Your task to perform on an android device: Set the phone to "Do not disturb". Image 0: 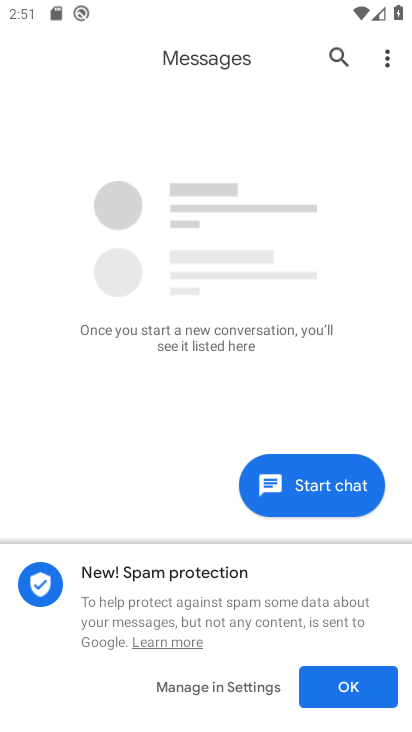
Step 0: press home button
Your task to perform on an android device: Set the phone to "Do not disturb". Image 1: 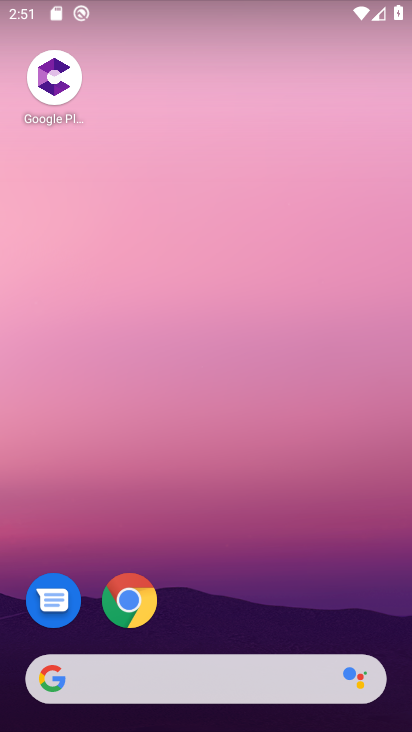
Step 1: drag from (188, 653) to (286, 175)
Your task to perform on an android device: Set the phone to "Do not disturb". Image 2: 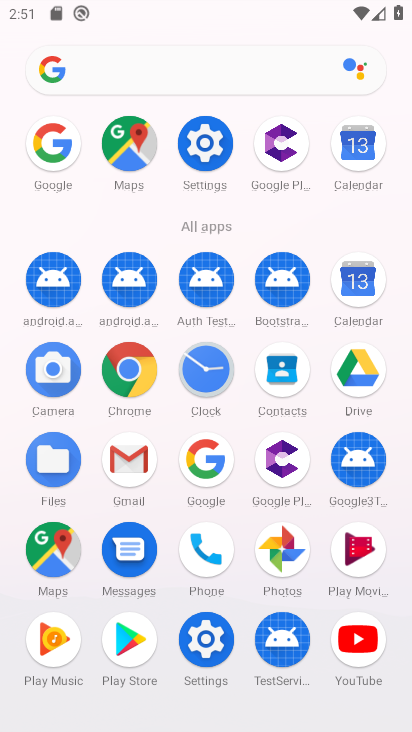
Step 2: click (213, 148)
Your task to perform on an android device: Set the phone to "Do not disturb". Image 3: 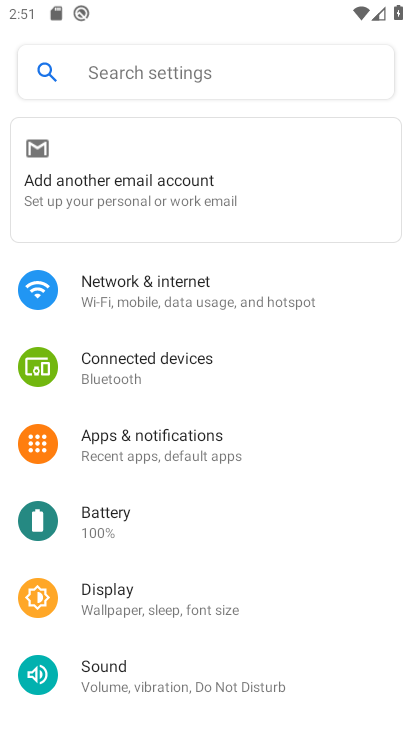
Step 3: click (216, 688)
Your task to perform on an android device: Set the phone to "Do not disturb". Image 4: 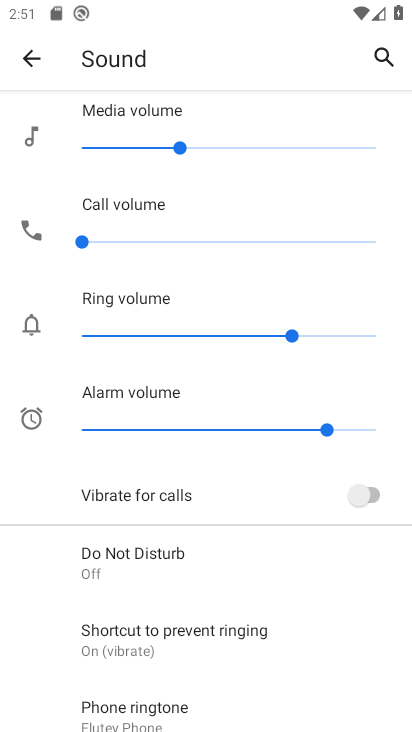
Step 4: click (146, 541)
Your task to perform on an android device: Set the phone to "Do not disturb". Image 5: 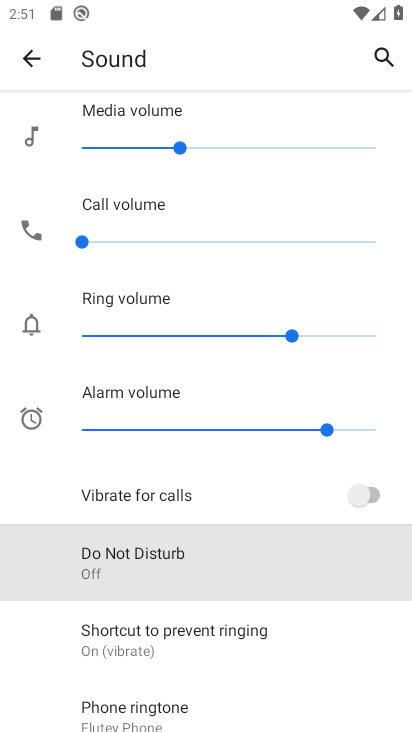
Step 5: click (145, 561)
Your task to perform on an android device: Set the phone to "Do not disturb". Image 6: 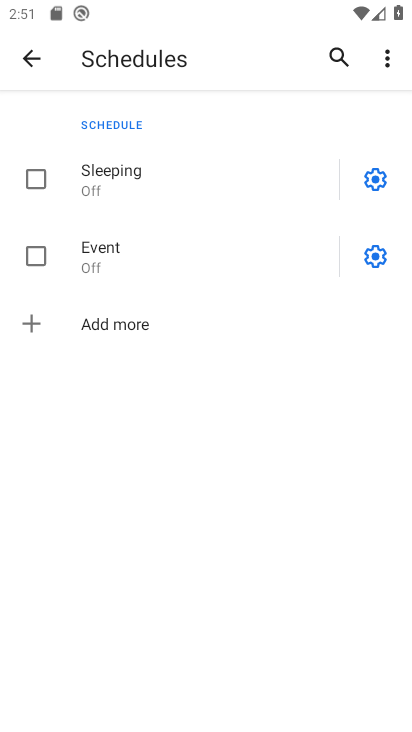
Step 6: click (104, 570)
Your task to perform on an android device: Set the phone to "Do not disturb". Image 7: 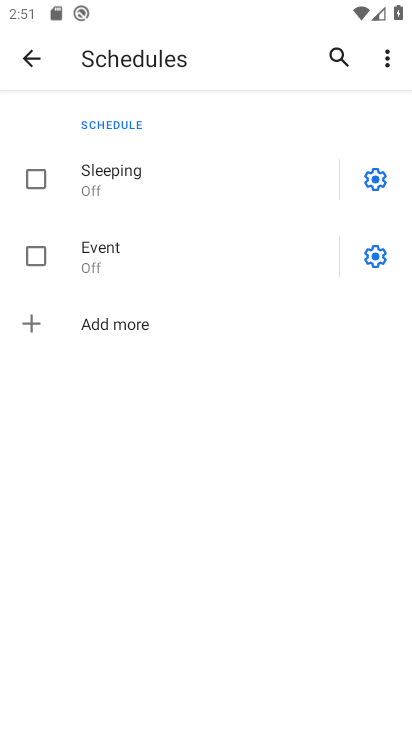
Step 7: click (44, 56)
Your task to perform on an android device: Set the phone to "Do not disturb". Image 8: 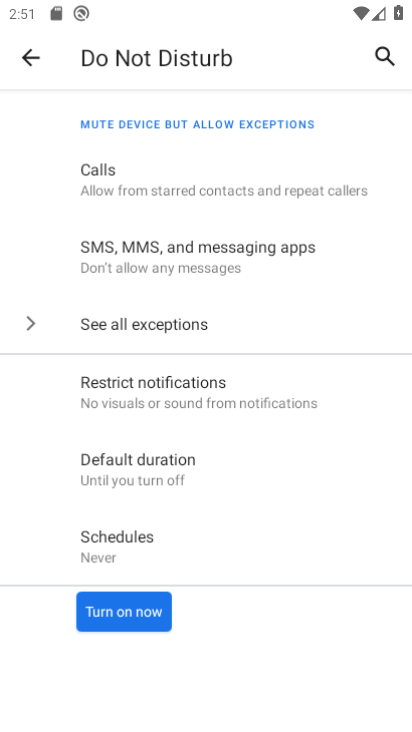
Step 8: click (30, 64)
Your task to perform on an android device: Set the phone to "Do not disturb". Image 9: 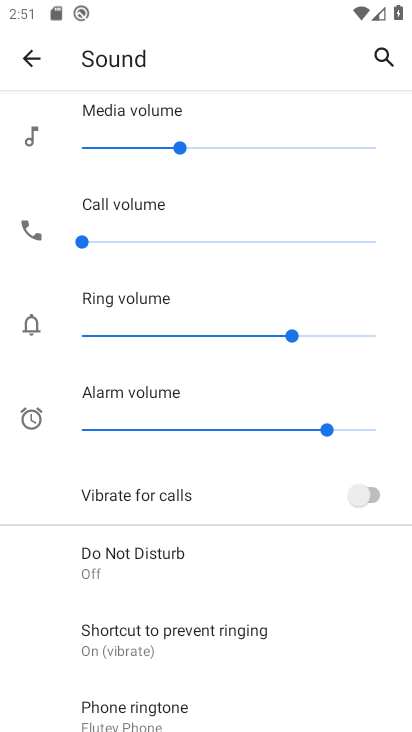
Step 9: click (116, 561)
Your task to perform on an android device: Set the phone to "Do not disturb". Image 10: 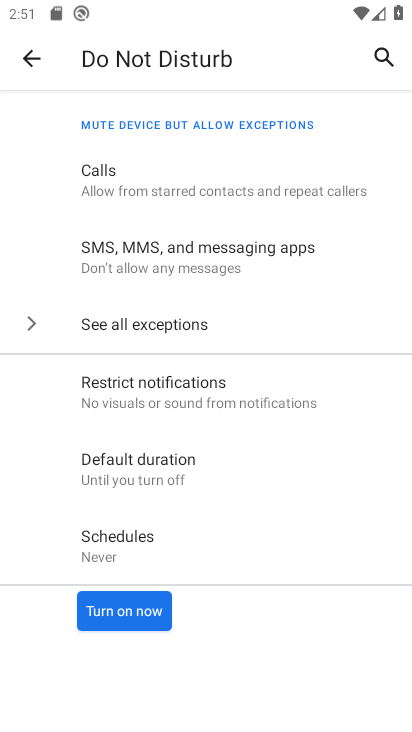
Step 10: click (129, 620)
Your task to perform on an android device: Set the phone to "Do not disturb". Image 11: 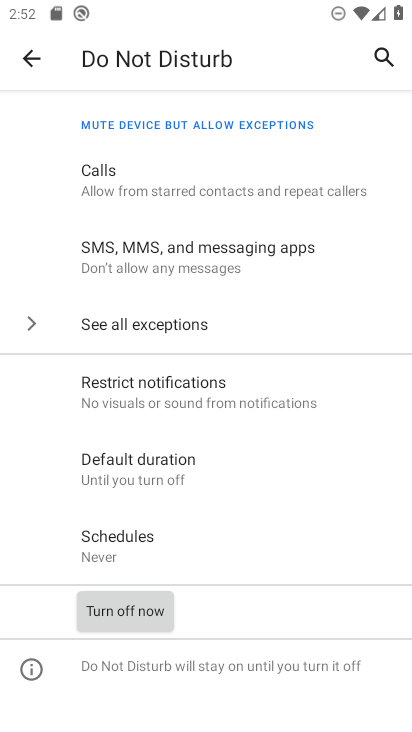
Step 11: task complete